Your task to perform on an android device: Google the capital of the United States Image 0: 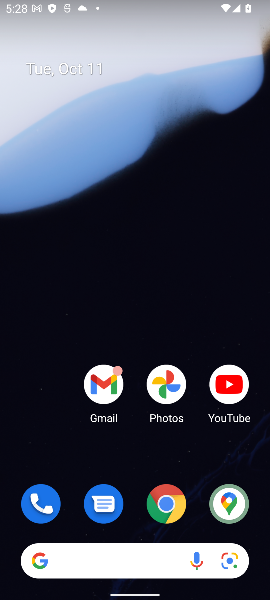
Step 0: click (81, 549)
Your task to perform on an android device: Google the capital of the United States Image 1: 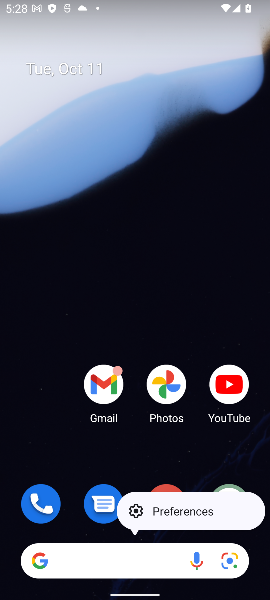
Step 1: click (99, 565)
Your task to perform on an android device: Google the capital of the United States Image 2: 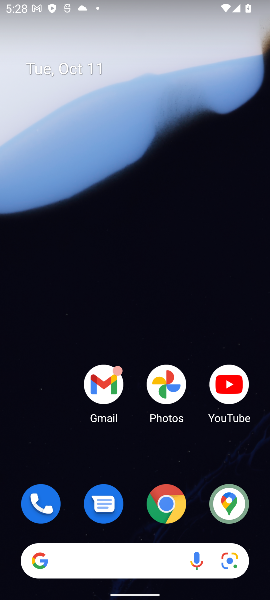
Step 2: click (122, 568)
Your task to perform on an android device: Google the capital of the United States Image 3: 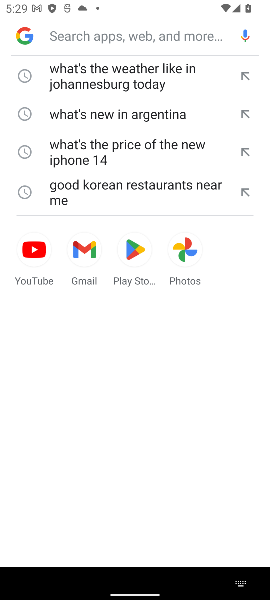
Step 3: click (65, 34)
Your task to perform on an android device: Google the capital of the United States Image 4: 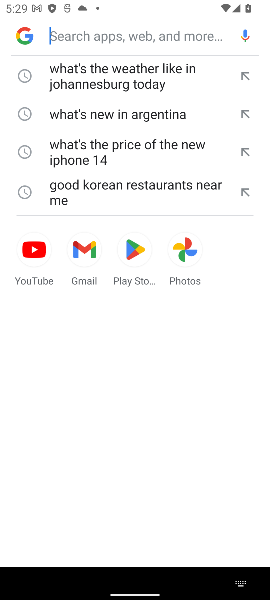
Step 4: type "Google the capital of the United States"
Your task to perform on an android device: Google the capital of the United States Image 5: 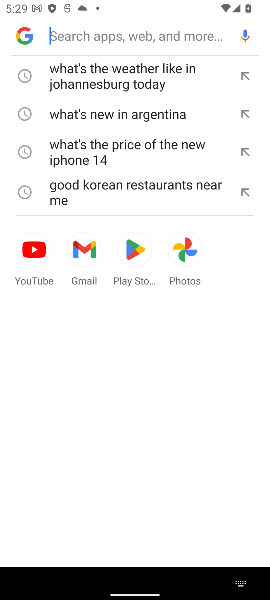
Step 5: click (203, 463)
Your task to perform on an android device: Google the capital of the United States Image 6: 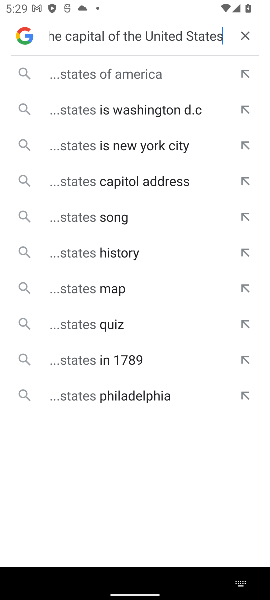
Step 6: click (111, 68)
Your task to perform on an android device: Google the capital of the United States Image 7: 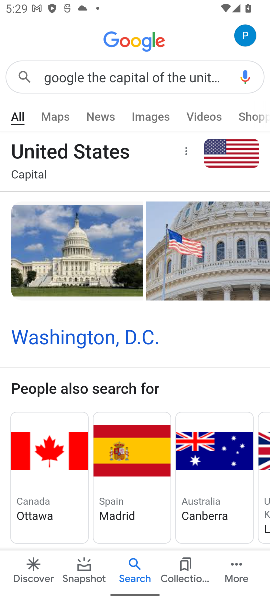
Step 7: task complete